Your task to perform on an android device: Do I have any events this weekend? Image 0: 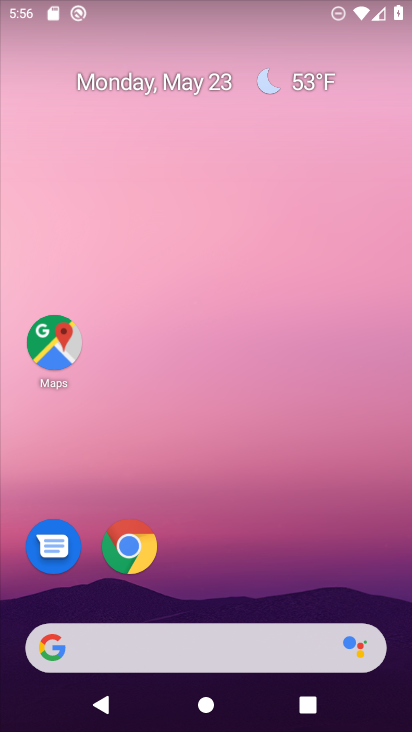
Step 0: click (201, 79)
Your task to perform on an android device: Do I have any events this weekend? Image 1: 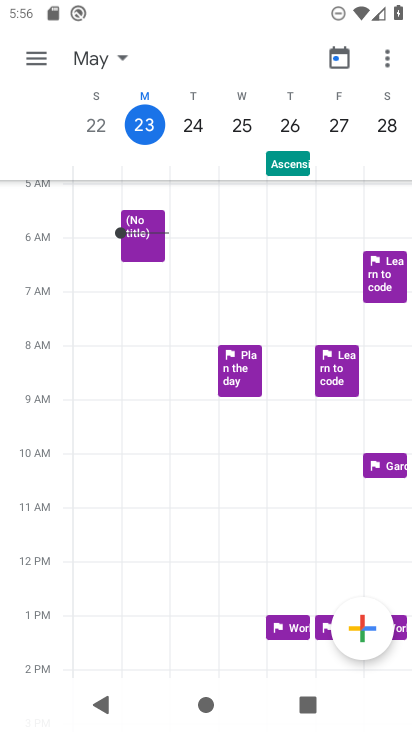
Step 1: click (41, 53)
Your task to perform on an android device: Do I have any events this weekend? Image 2: 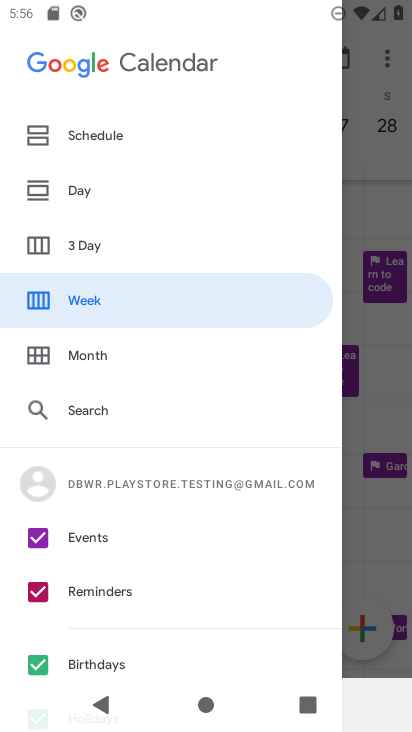
Step 2: drag from (83, 584) to (97, 326)
Your task to perform on an android device: Do I have any events this weekend? Image 3: 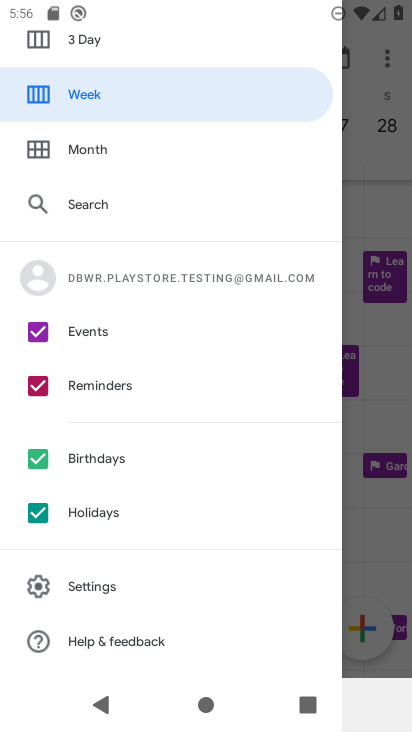
Step 3: click (32, 391)
Your task to perform on an android device: Do I have any events this weekend? Image 4: 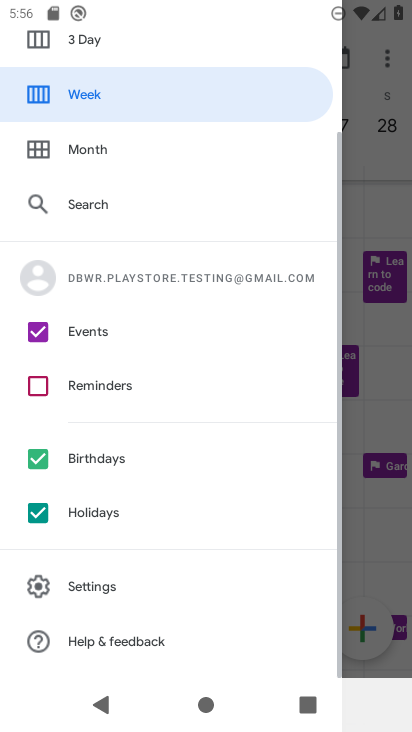
Step 4: click (36, 461)
Your task to perform on an android device: Do I have any events this weekend? Image 5: 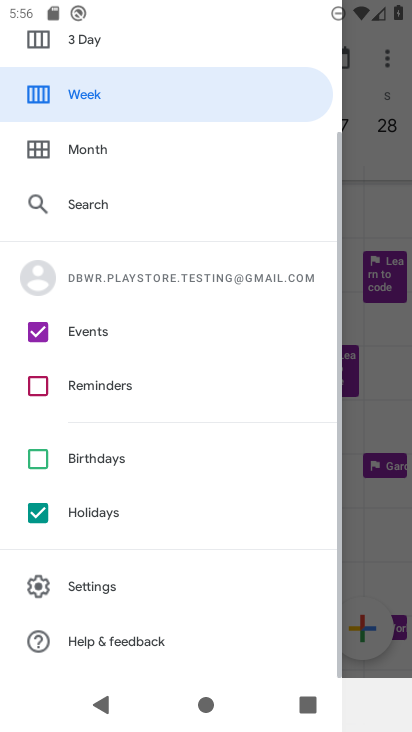
Step 5: click (35, 512)
Your task to perform on an android device: Do I have any events this weekend? Image 6: 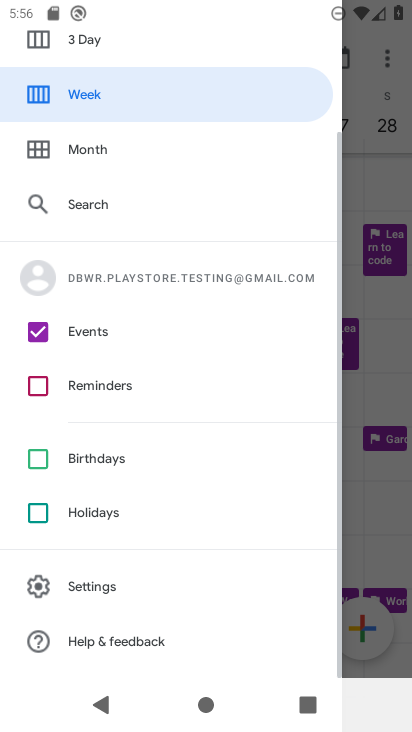
Step 6: drag from (215, 132) to (182, 439)
Your task to perform on an android device: Do I have any events this weekend? Image 7: 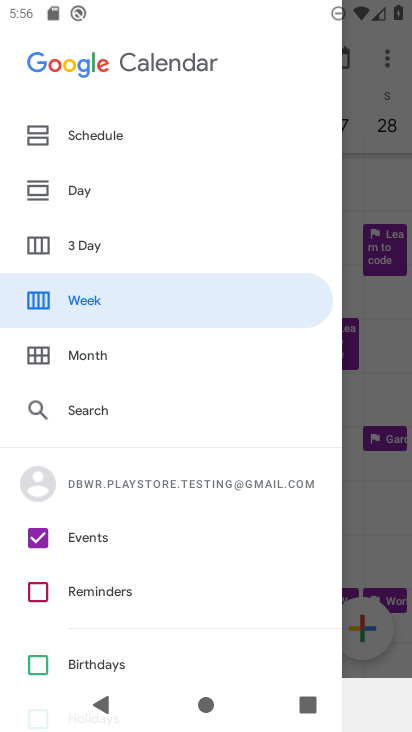
Step 7: click (97, 239)
Your task to perform on an android device: Do I have any events this weekend? Image 8: 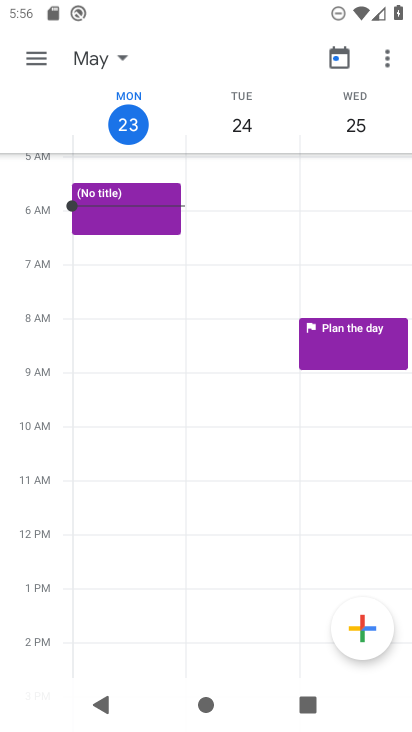
Step 8: drag from (226, 597) to (238, 330)
Your task to perform on an android device: Do I have any events this weekend? Image 9: 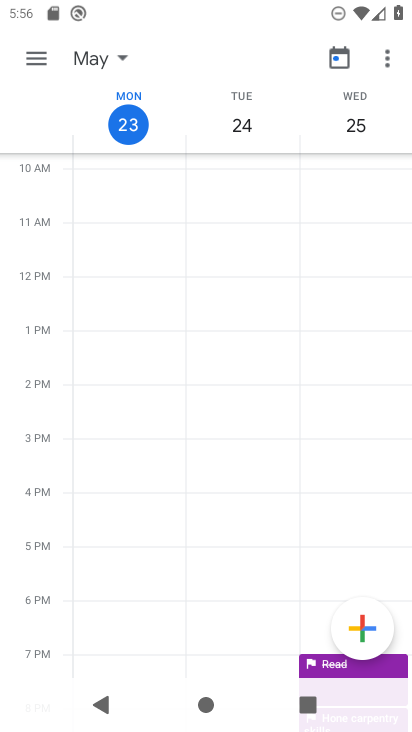
Step 9: drag from (257, 614) to (259, 318)
Your task to perform on an android device: Do I have any events this weekend? Image 10: 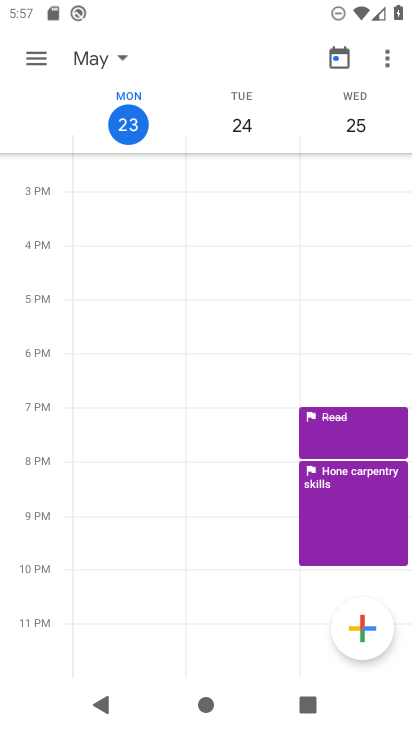
Step 10: drag from (323, 373) to (52, 371)
Your task to perform on an android device: Do I have any events this weekend? Image 11: 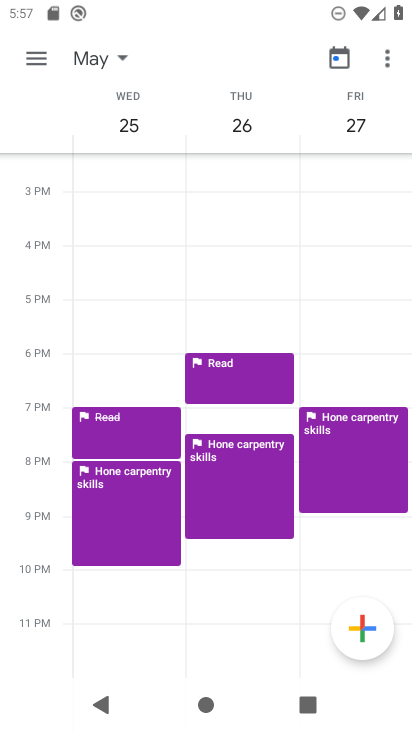
Step 11: click (52, 371)
Your task to perform on an android device: Do I have any events this weekend? Image 12: 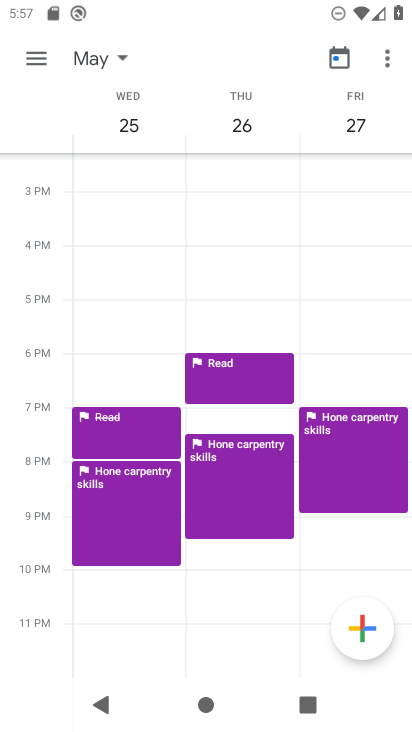
Step 12: task complete